Your task to perform on an android device: turn on priority inbox in the gmail app Image 0: 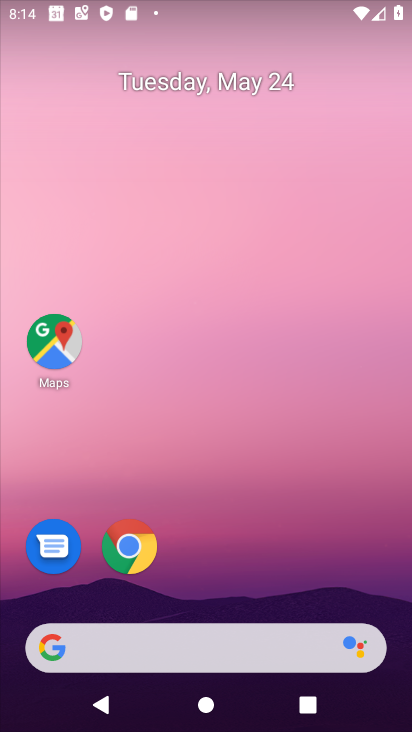
Step 0: drag from (267, 544) to (211, 11)
Your task to perform on an android device: turn on priority inbox in the gmail app Image 1: 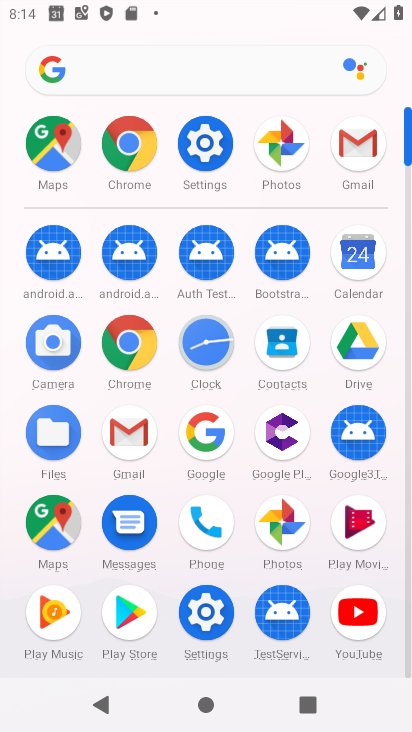
Step 1: click (212, 134)
Your task to perform on an android device: turn on priority inbox in the gmail app Image 2: 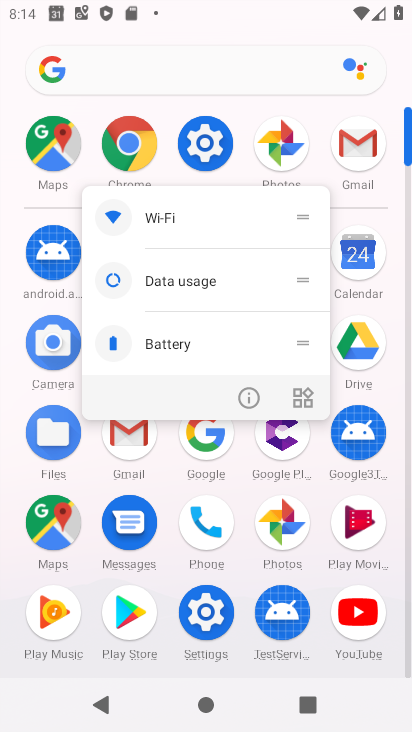
Step 2: click (350, 140)
Your task to perform on an android device: turn on priority inbox in the gmail app Image 3: 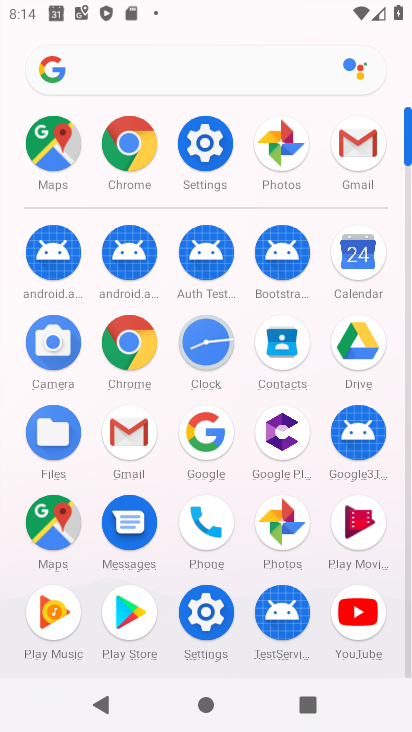
Step 3: click (350, 137)
Your task to perform on an android device: turn on priority inbox in the gmail app Image 4: 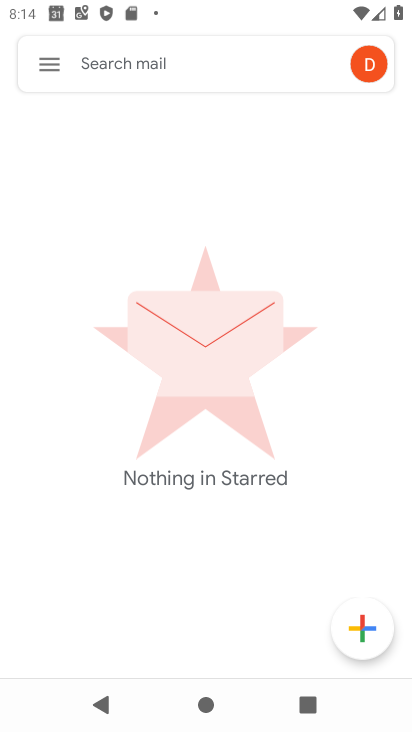
Step 4: click (42, 60)
Your task to perform on an android device: turn on priority inbox in the gmail app Image 5: 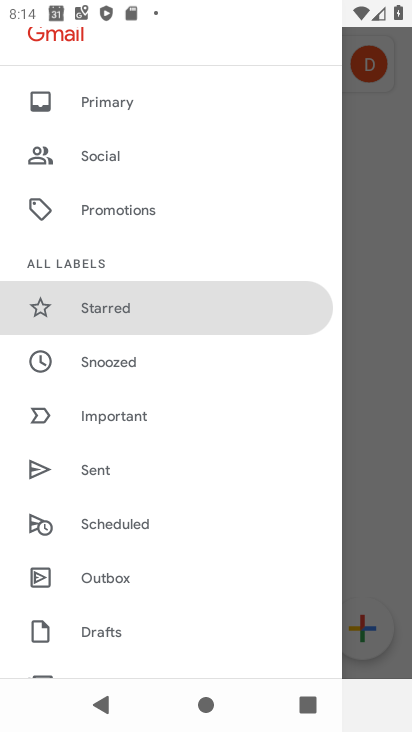
Step 5: drag from (173, 489) to (184, 60)
Your task to perform on an android device: turn on priority inbox in the gmail app Image 6: 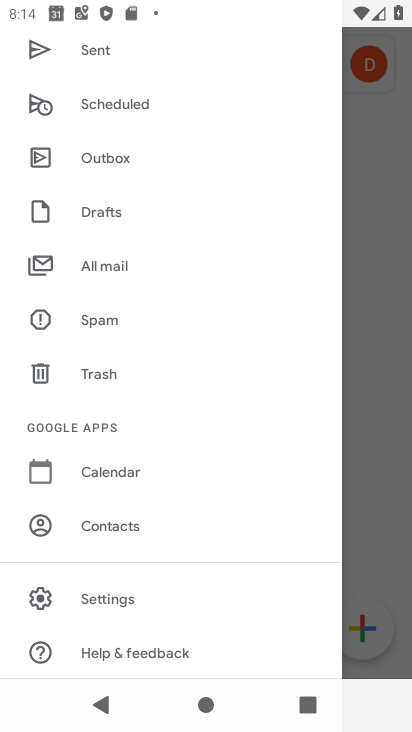
Step 6: click (113, 598)
Your task to perform on an android device: turn on priority inbox in the gmail app Image 7: 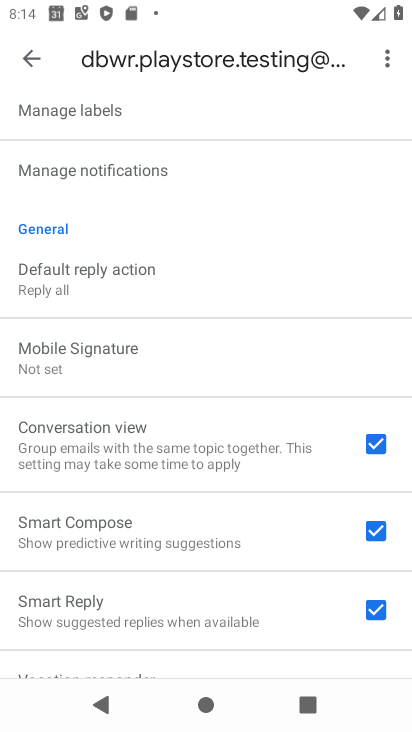
Step 7: drag from (180, 207) to (208, 610)
Your task to perform on an android device: turn on priority inbox in the gmail app Image 8: 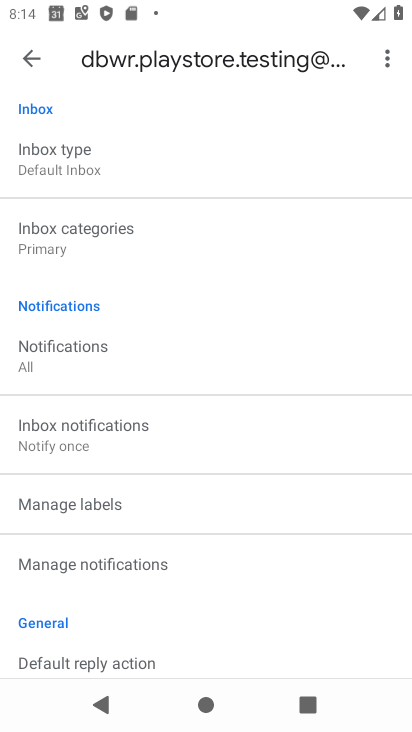
Step 8: click (75, 154)
Your task to perform on an android device: turn on priority inbox in the gmail app Image 9: 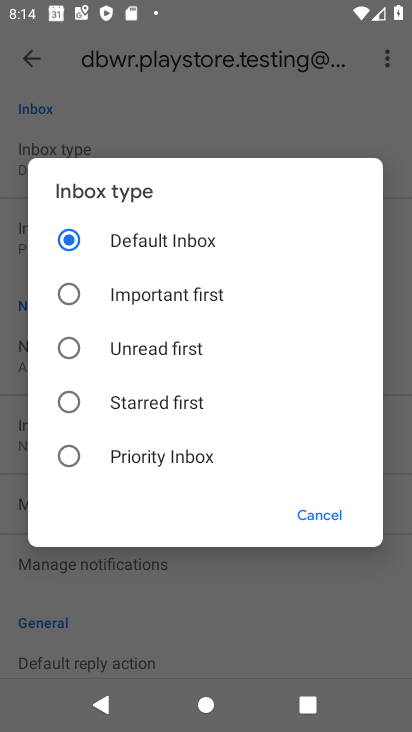
Step 9: click (72, 454)
Your task to perform on an android device: turn on priority inbox in the gmail app Image 10: 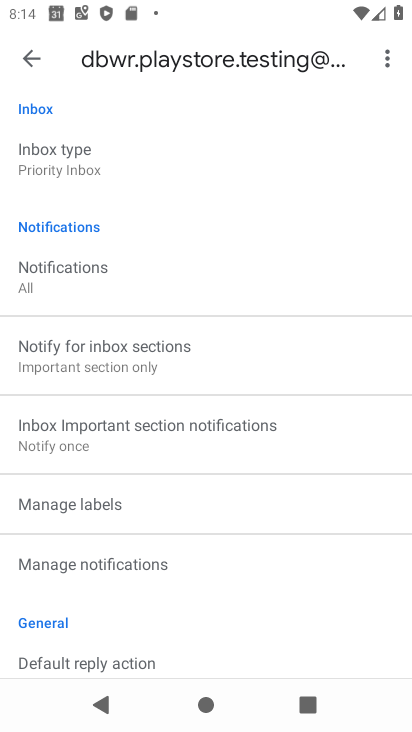
Step 10: task complete